Your task to perform on an android device: Open internet settings Image 0: 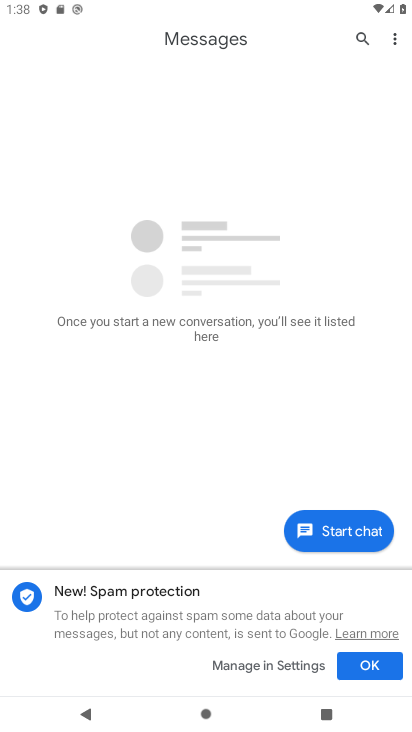
Step 0: press home button
Your task to perform on an android device: Open internet settings Image 1: 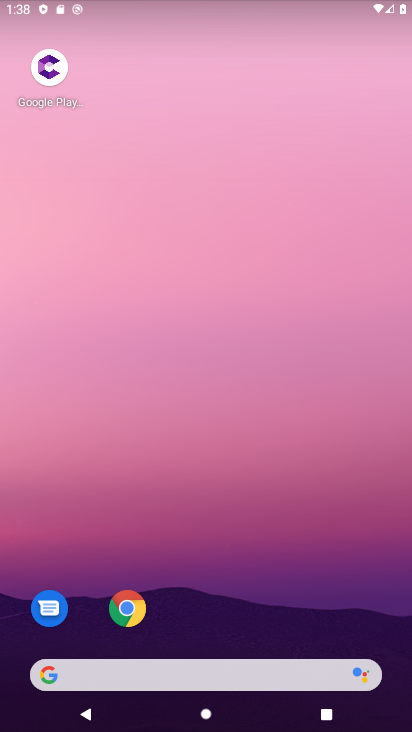
Step 1: drag from (241, 570) to (214, 106)
Your task to perform on an android device: Open internet settings Image 2: 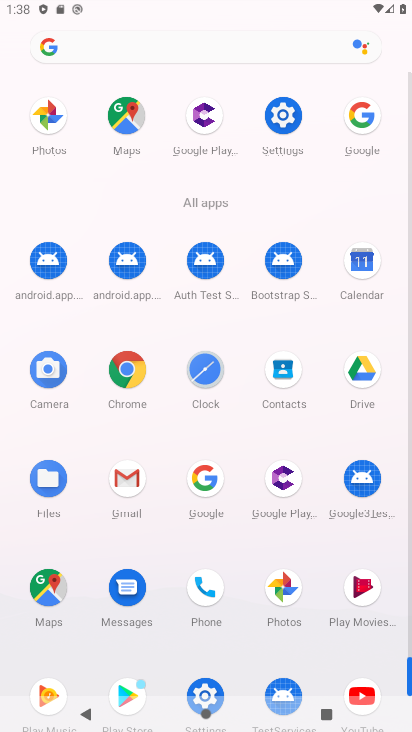
Step 2: click (287, 111)
Your task to perform on an android device: Open internet settings Image 3: 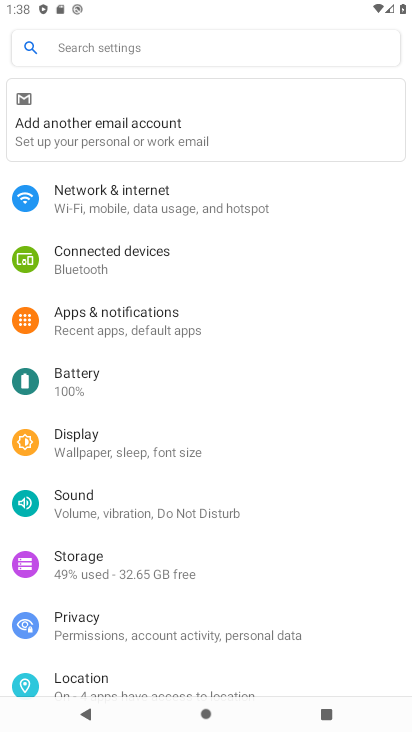
Step 3: click (148, 185)
Your task to perform on an android device: Open internet settings Image 4: 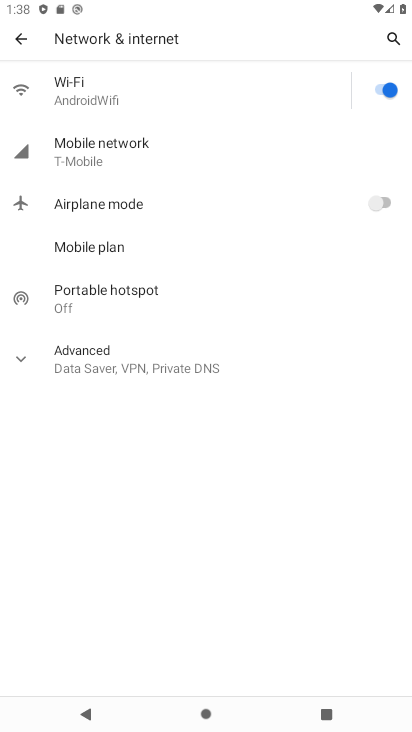
Step 4: click (117, 93)
Your task to perform on an android device: Open internet settings Image 5: 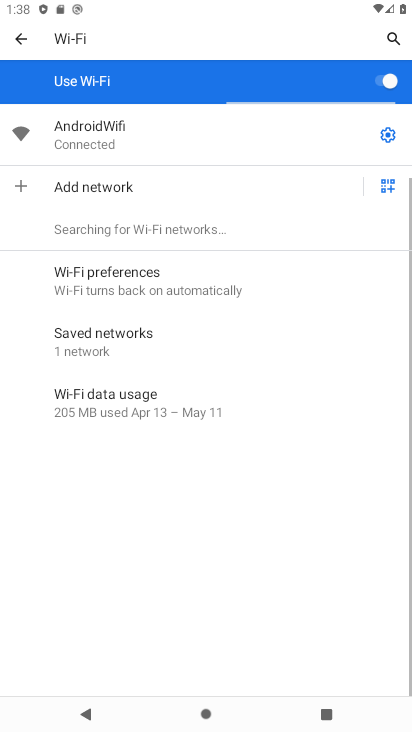
Step 5: click (175, 133)
Your task to perform on an android device: Open internet settings Image 6: 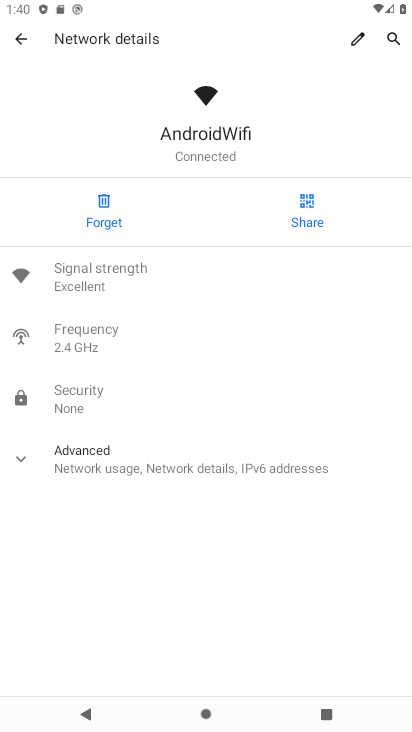
Step 6: task complete